Your task to perform on an android device: When is my next meeting? Image 0: 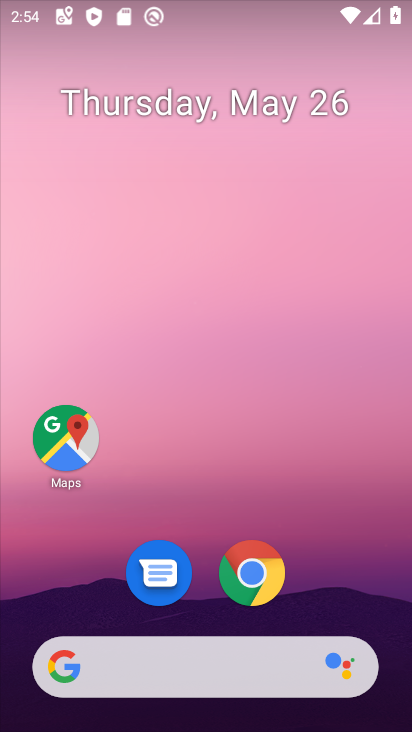
Step 0: drag from (238, 648) to (264, 29)
Your task to perform on an android device: When is my next meeting? Image 1: 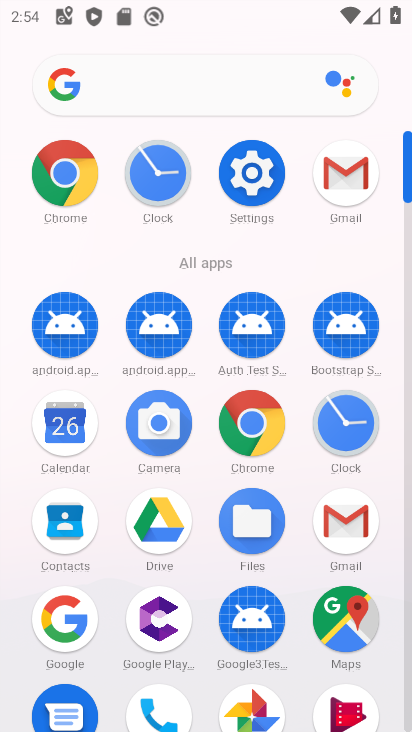
Step 1: click (65, 445)
Your task to perform on an android device: When is my next meeting? Image 2: 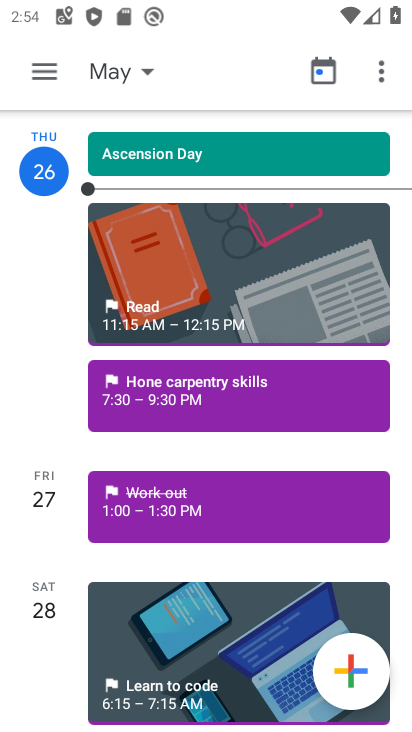
Step 2: click (47, 66)
Your task to perform on an android device: When is my next meeting? Image 3: 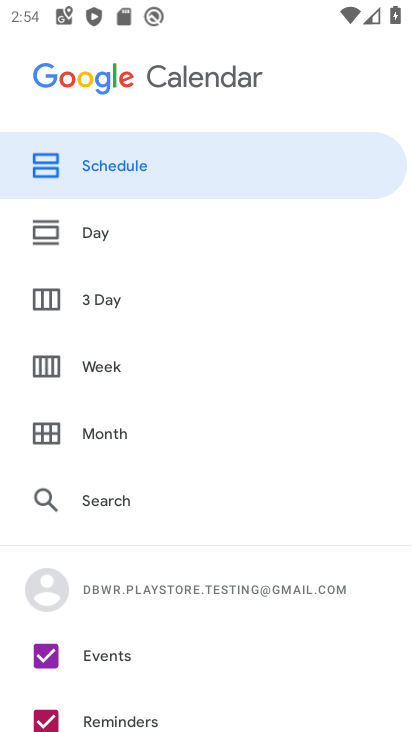
Step 3: click (149, 162)
Your task to perform on an android device: When is my next meeting? Image 4: 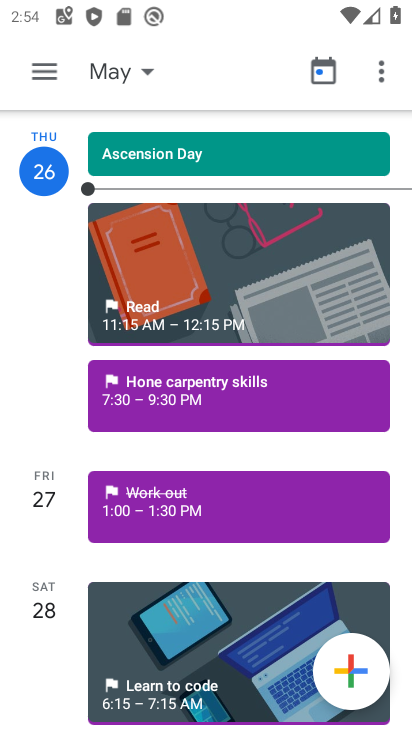
Step 4: task complete